Your task to perform on an android device: turn on javascript in the chrome app Image 0: 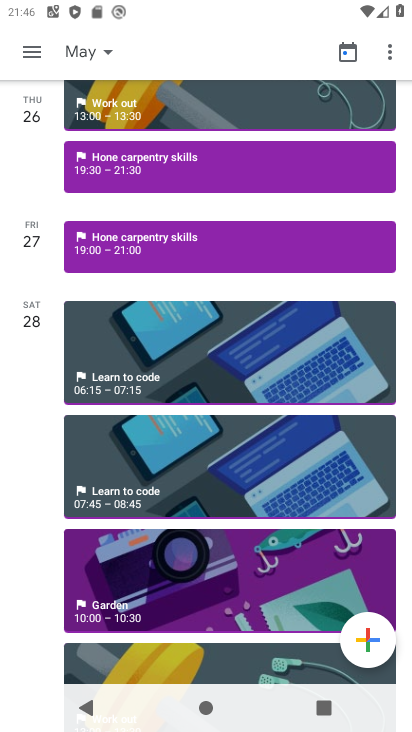
Step 0: press home button
Your task to perform on an android device: turn on javascript in the chrome app Image 1: 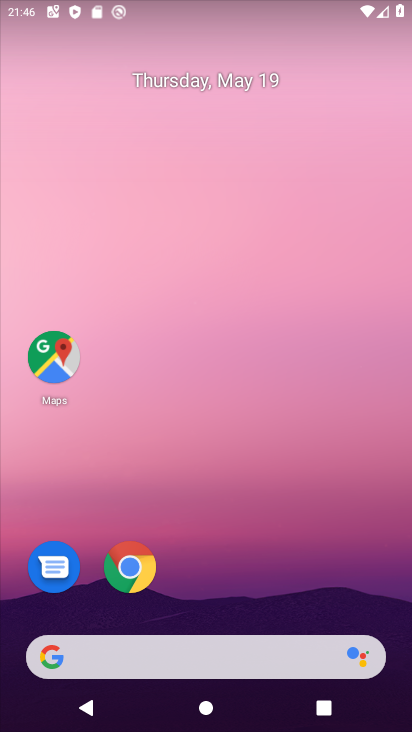
Step 1: click (127, 567)
Your task to perform on an android device: turn on javascript in the chrome app Image 2: 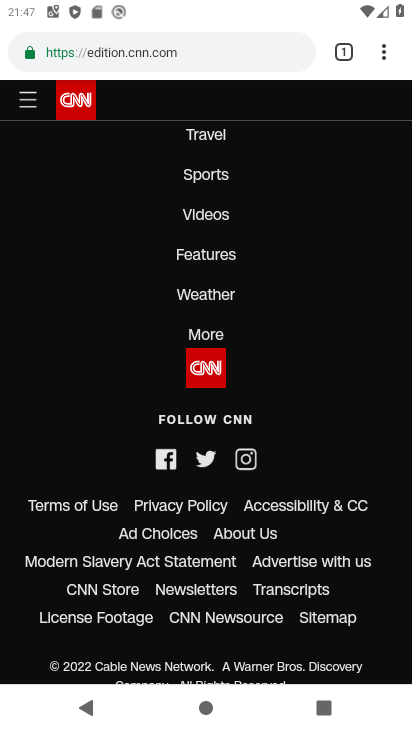
Step 2: click (389, 48)
Your task to perform on an android device: turn on javascript in the chrome app Image 3: 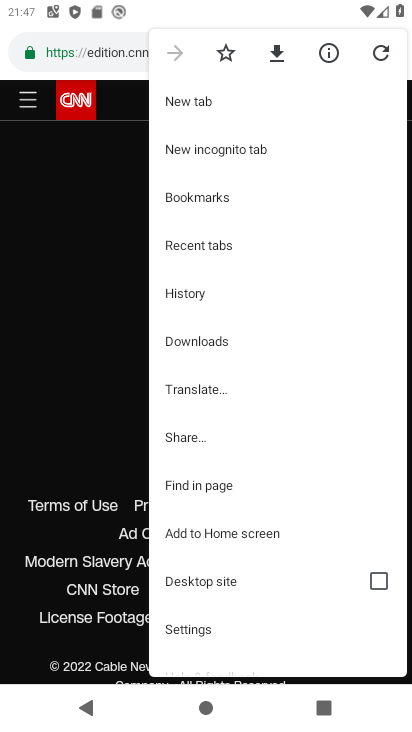
Step 3: click (224, 628)
Your task to perform on an android device: turn on javascript in the chrome app Image 4: 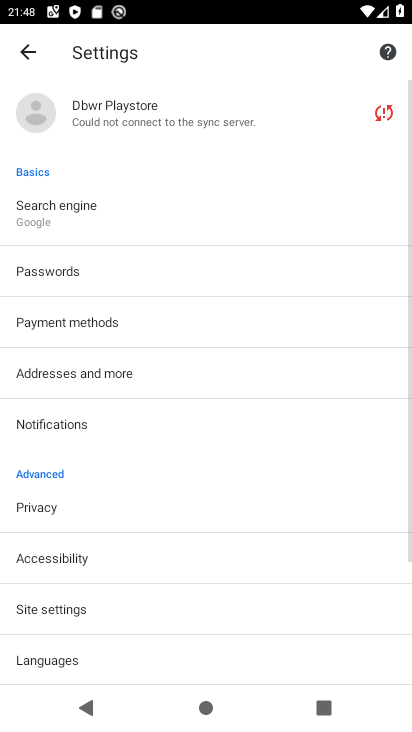
Step 4: drag from (136, 629) to (207, 250)
Your task to perform on an android device: turn on javascript in the chrome app Image 5: 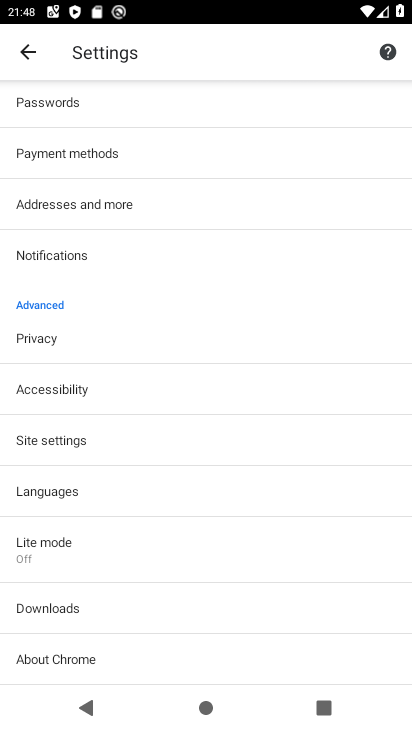
Step 5: click (97, 431)
Your task to perform on an android device: turn on javascript in the chrome app Image 6: 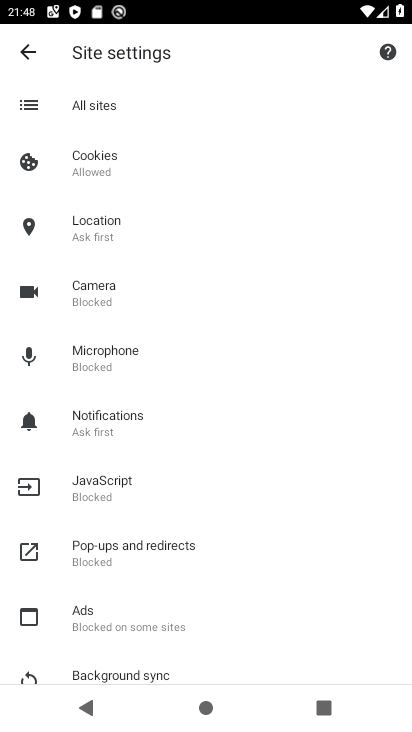
Step 6: click (125, 482)
Your task to perform on an android device: turn on javascript in the chrome app Image 7: 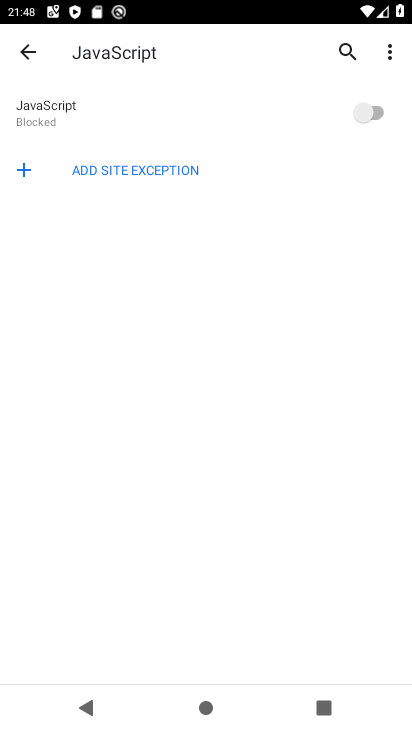
Step 7: click (372, 112)
Your task to perform on an android device: turn on javascript in the chrome app Image 8: 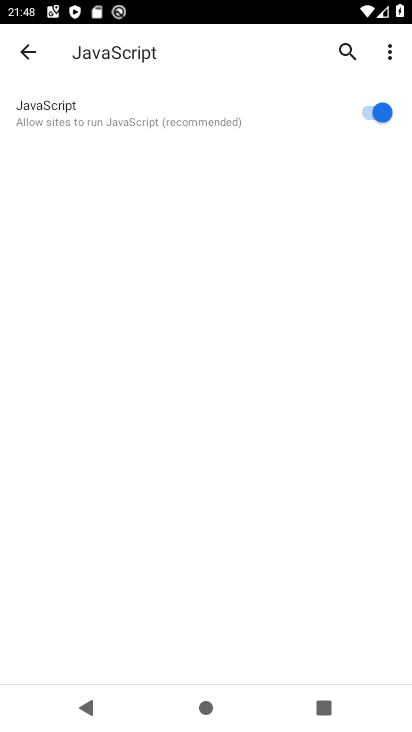
Step 8: task complete